Your task to perform on an android device: Open Google Maps and go to "Timeline" Image 0: 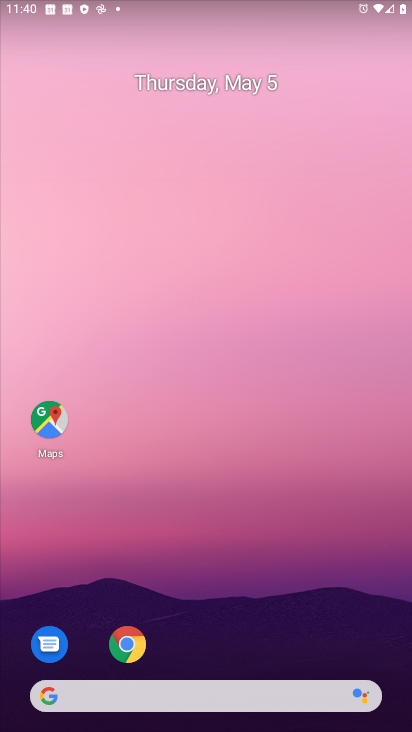
Step 0: drag from (220, 589) to (248, 135)
Your task to perform on an android device: Open Google Maps and go to "Timeline" Image 1: 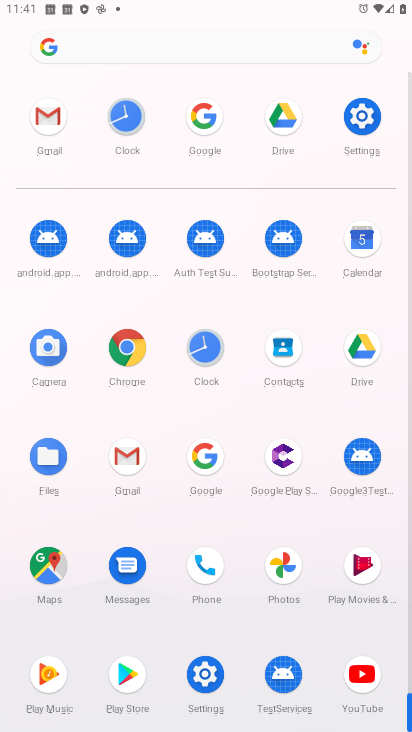
Step 1: click (52, 572)
Your task to perform on an android device: Open Google Maps and go to "Timeline" Image 2: 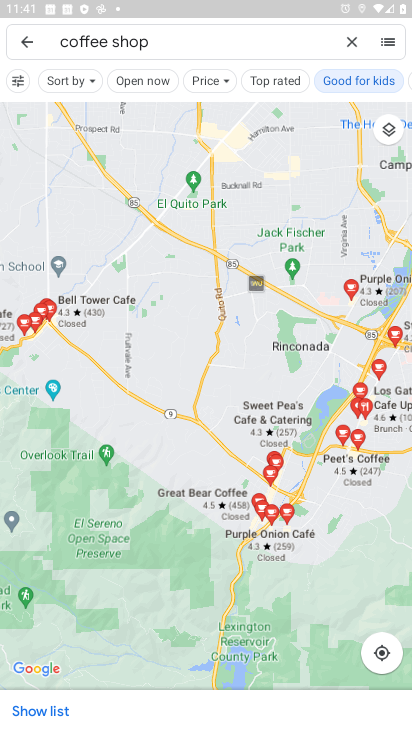
Step 2: click (27, 48)
Your task to perform on an android device: Open Google Maps and go to "Timeline" Image 3: 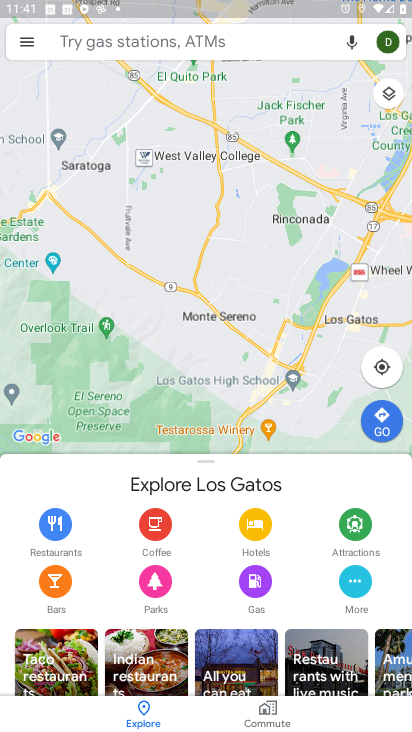
Step 3: click (28, 32)
Your task to perform on an android device: Open Google Maps and go to "Timeline" Image 4: 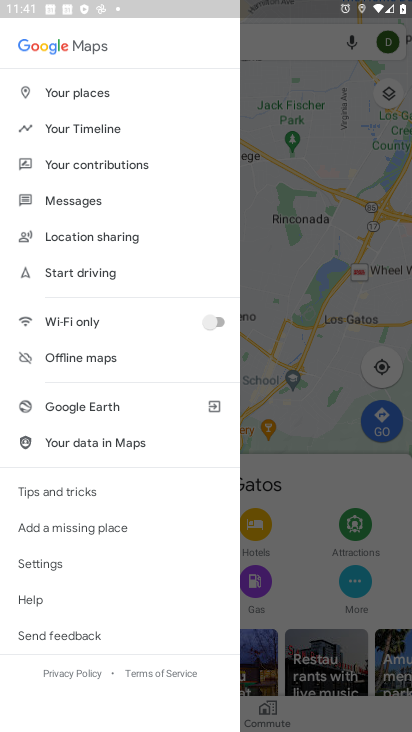
Step 4: click (69, 117)
Your task to perform on an android device: Open Google Maps and go to "Timeline" Image 5: 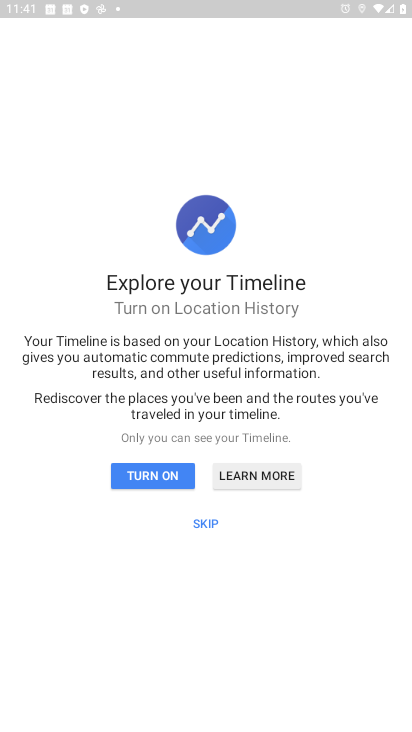
Step 5: click (168, 482)
Your task to perform on an android device: Open Google Maps and go to "Timeline" Image 6: 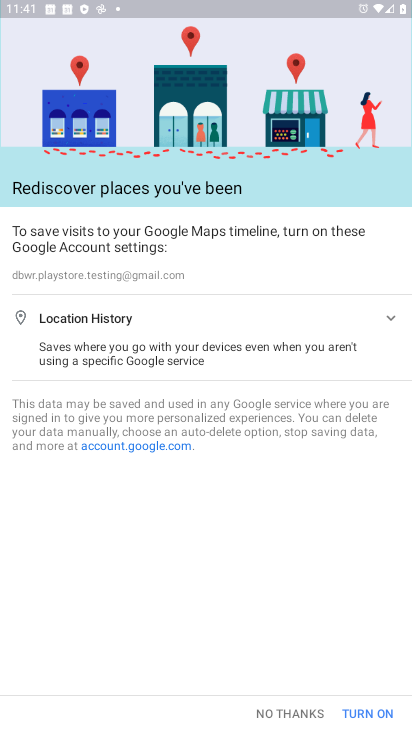
Step 6: task complete